Your task to perform on an android device: allow cookies in the chrome app Image 0: 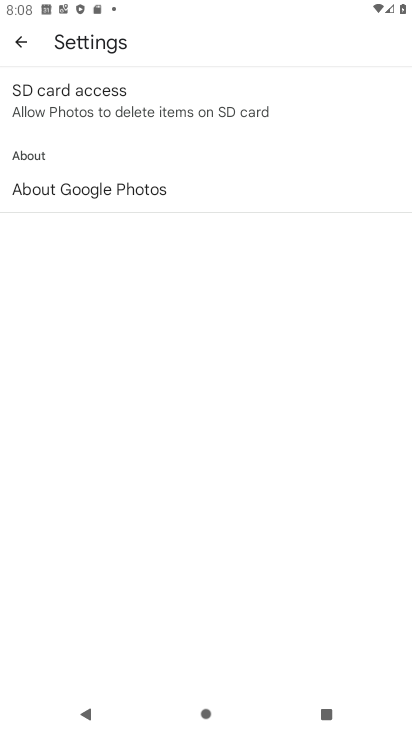
Step 0: press home button
Your task to perform on an android device: allow cookies in the chrome app Image 1: 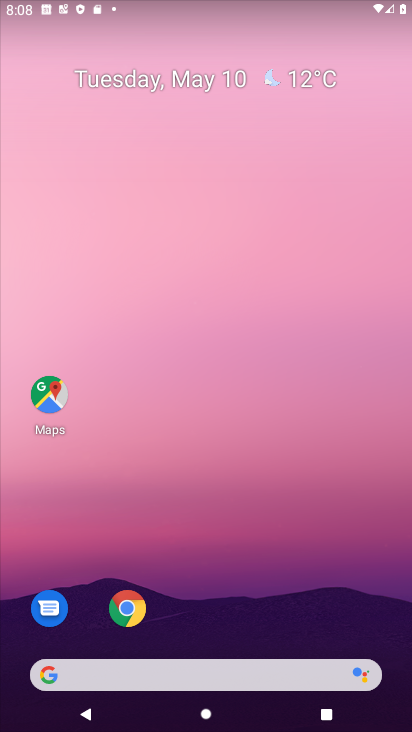
Step 1: drag from (172, 680) to (244, 191)
Your task to perform on an android device: allow cookies in the chrome app Image 2: 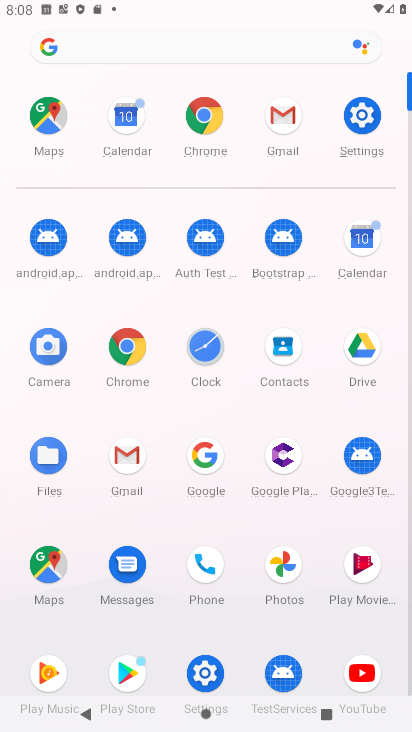
Step 2: click (204, 121)
Your task to perform on an android device: allow cookies in the chrome app Image 3: 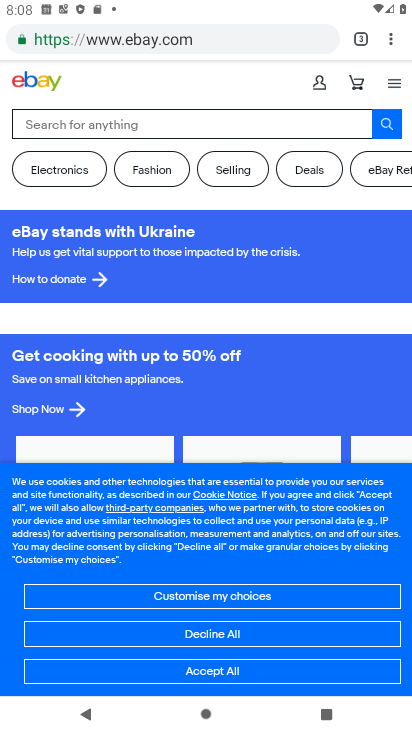
Step 3: drag from (389, 43) to (258, 469)
Your task to perform on an android device: allow cookies in the chrome app Image 4: 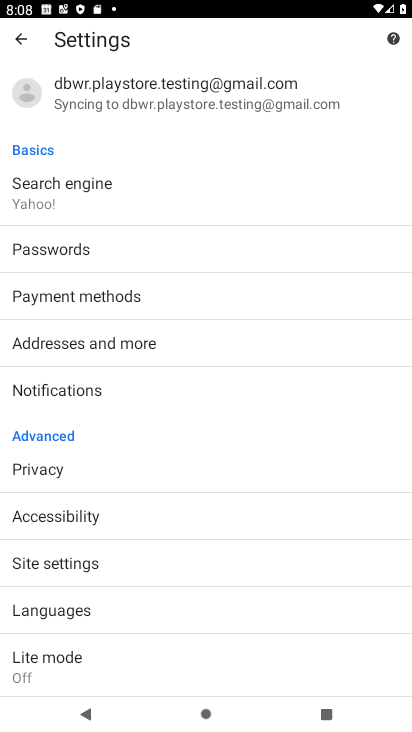
Step 4: click (77, 565)
Your task to perform on an android device: allow cookies in the chrome app Image 5: 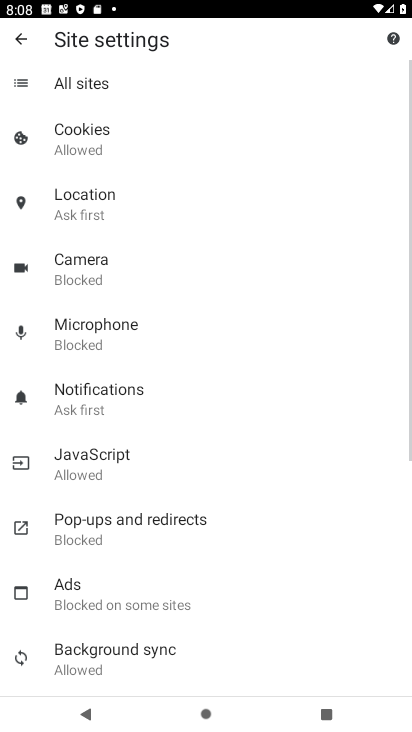
Step 5: click (80, 147)
Your task to perform on an android device: allow cookies in the chrome app Image 6: 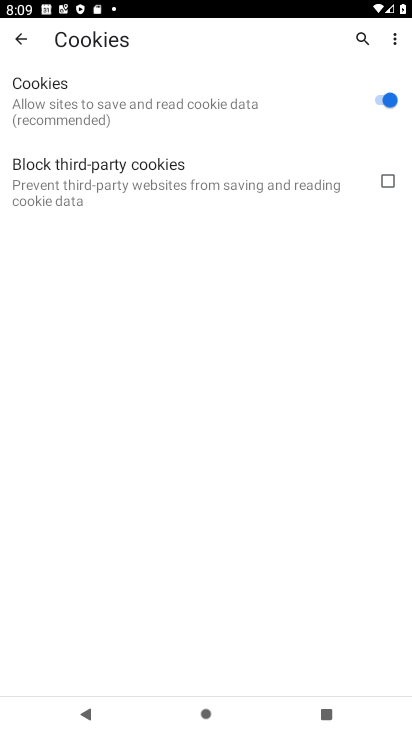
Step 6: task complete